Your task to perform on an android device: Go to battery settings Image 0: 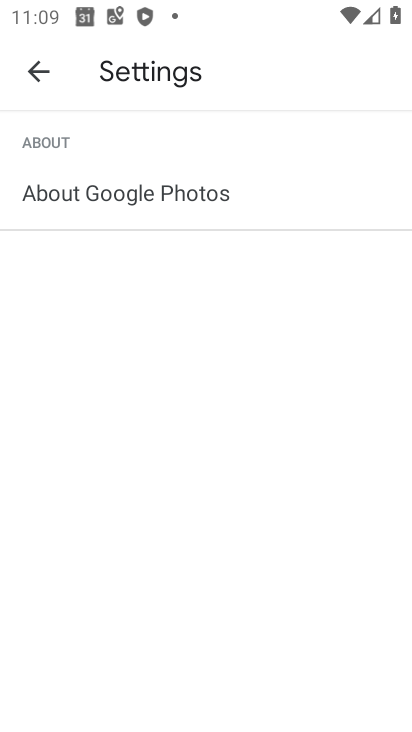
Step 0: press home button
Your task to perform on an android device: Go to battery settings Image 1: 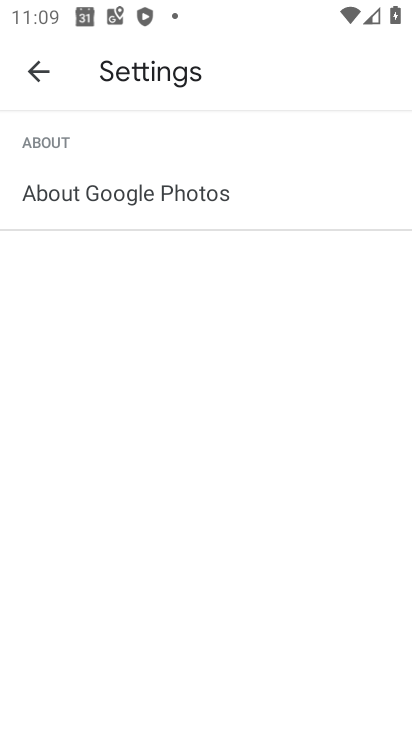
Step 1: press home button
Your task to perform on an android device: Go to battery settings Image 2: 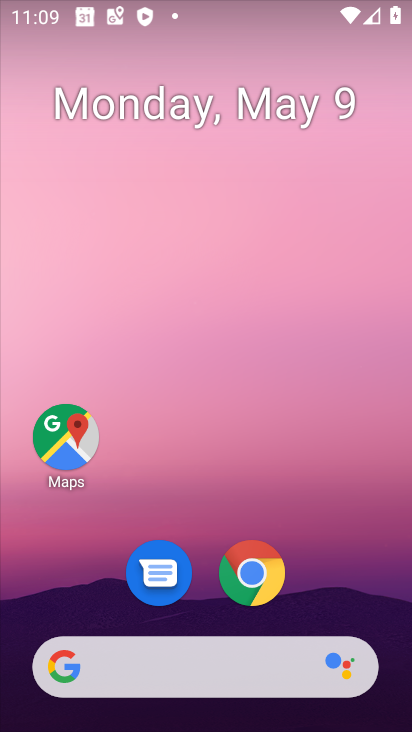
Step 2: drag from (230, 613) to (248, 319)
Your task to perform on an android device: Go to battery settings Image 3: 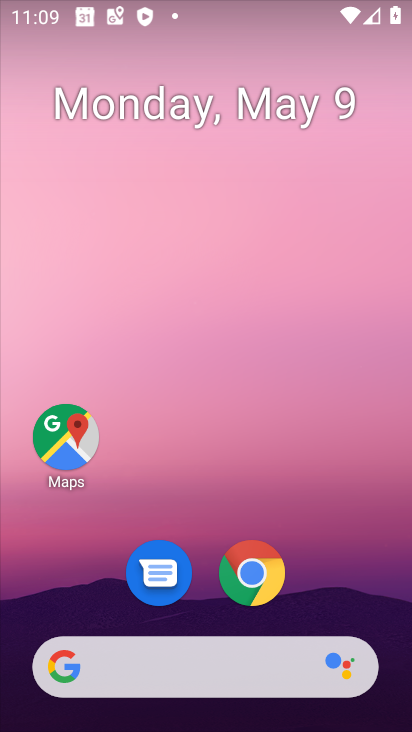
Step 3: drag from (212, 627) to (222, 264)
Your task to perform on an android device: Go to battery settings Image 4: 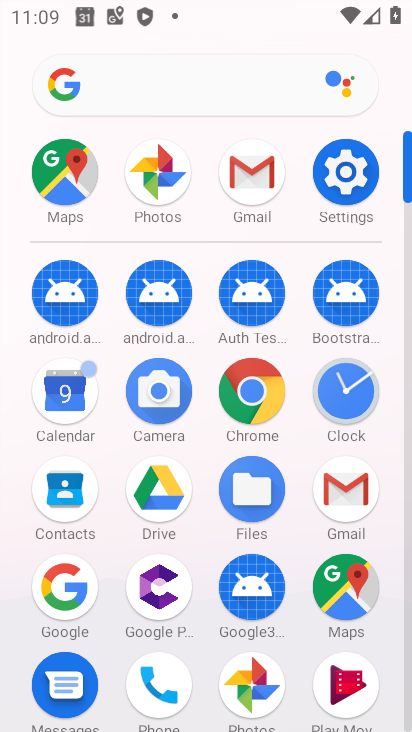
Step 4: click (310, 170)
Your task to perform on an android device: Go to battery settings Image 5: 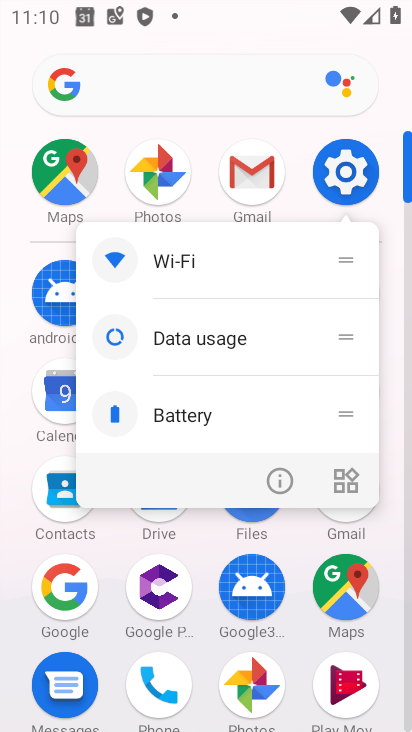
Step 5: click (270, 483)
Your task to perform on an android device: Go to battery settings Image 6: 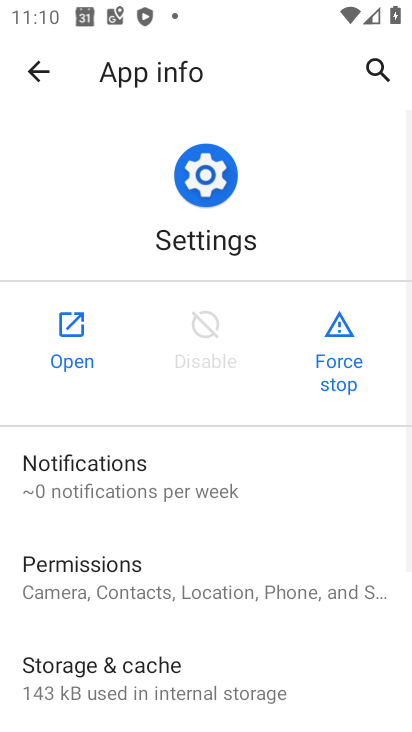
Step 6: click (68, 322)
Your task to perform on an android device: Go to battery settings Image 7: 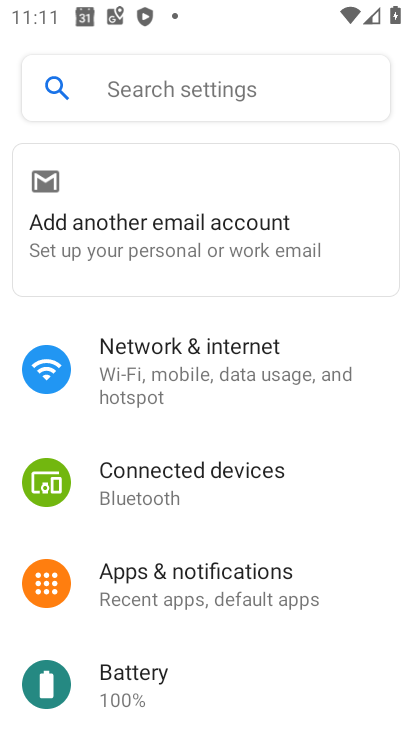
Step 7: drag from (216, 608) to (403, 324)
Your task to perform on an android device: Go to battery settings Image 8: 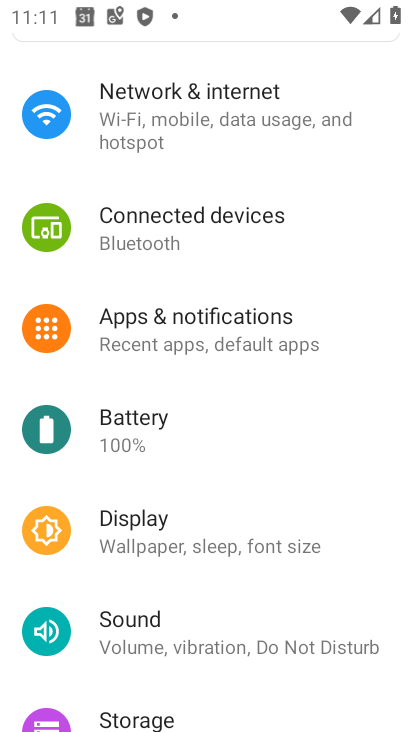
Step 8: click (156, 418)
Your task to perform on an android device: Go to battery settings Image 9: 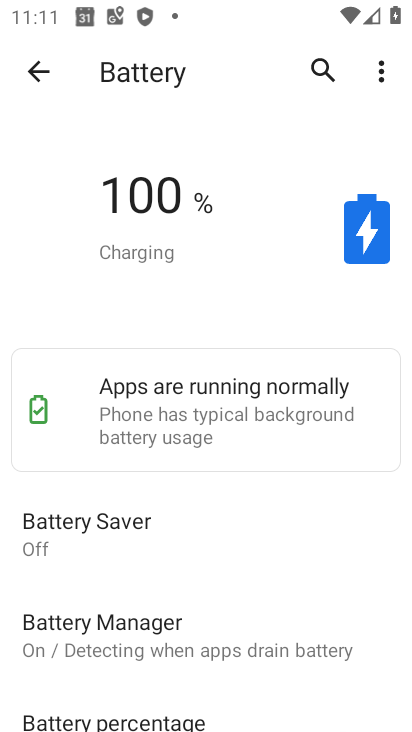
Step 9: task complete